Your task to perform on an android device: toggle location history Image 0: 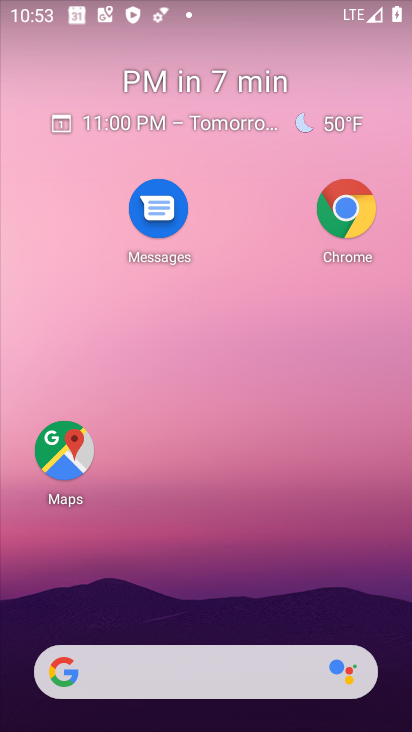
Step 0: drag from (212, 635) to (202, 7)
Your task to perform on an android device: toggle location history Image 1: 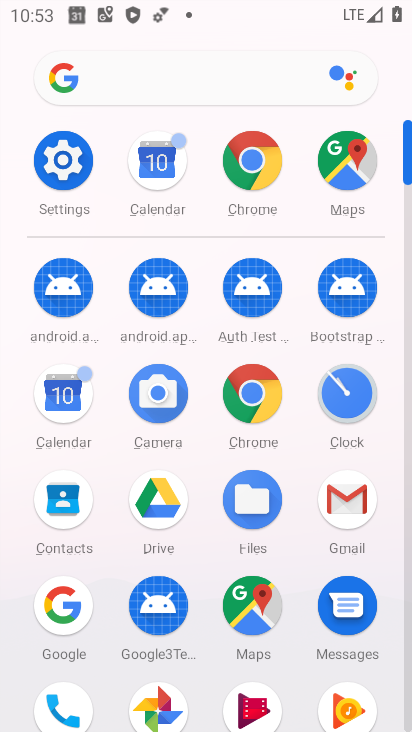
Step 1: click (62, 138)
Your task to perform on an android device: toggle location history Image 2: 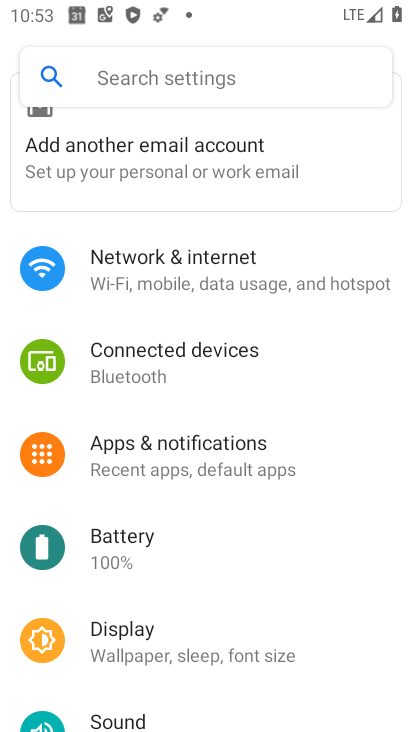
Step 2: drag from (162, 601) to (147, 11)
Your task to perform on an android device: toggle location history Image 3: 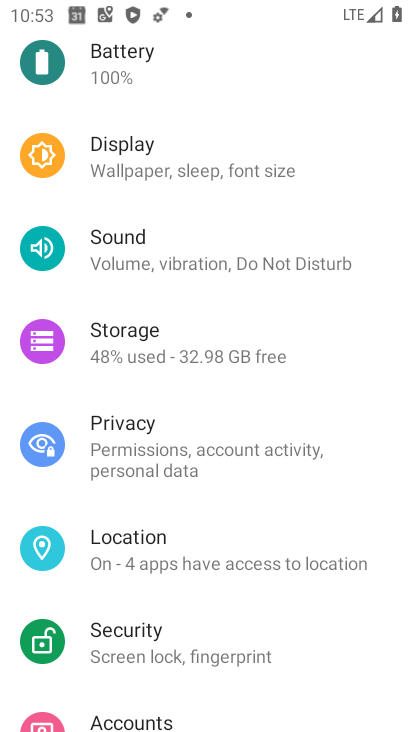
Step 3: click (154, 562)
Your task to perform on an android device: toggle location history Image 4: 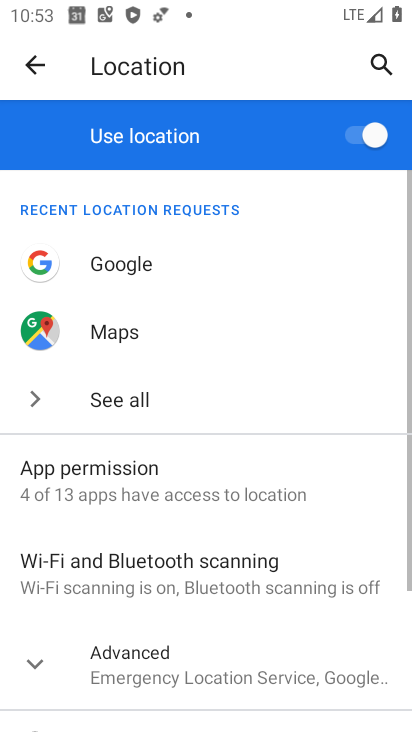
Step 4: click (173, 659)
Your task to perform on an android device: toggle location history Image 5: 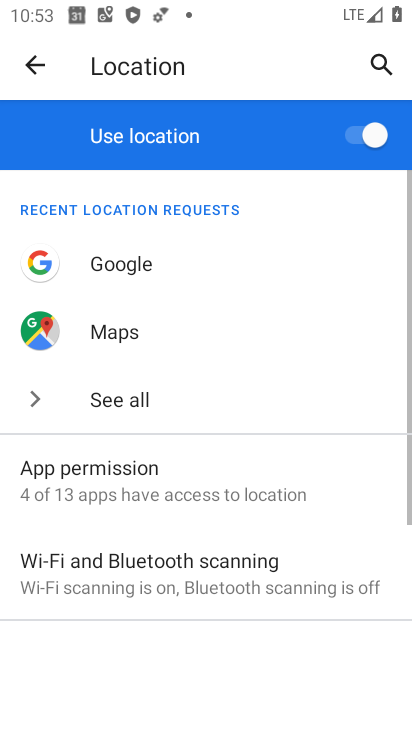
Step 5: drag from (173, 659) to (173, 155)
Your task to perform on an android device: toggle location history Image 6: 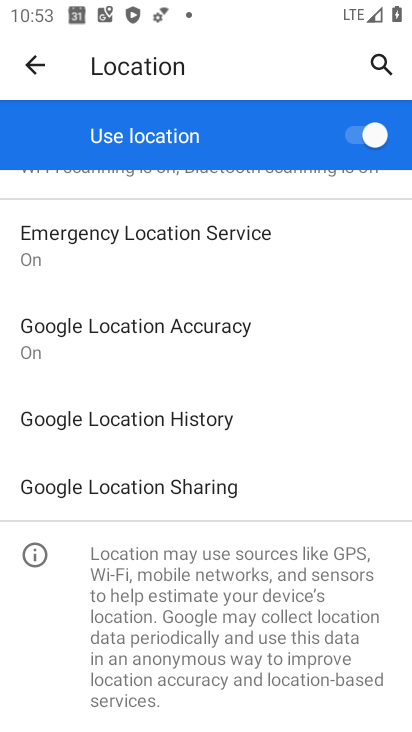
Step 6: click (180, 425)
Your task to perform on an android device: toggle location history Image 7: 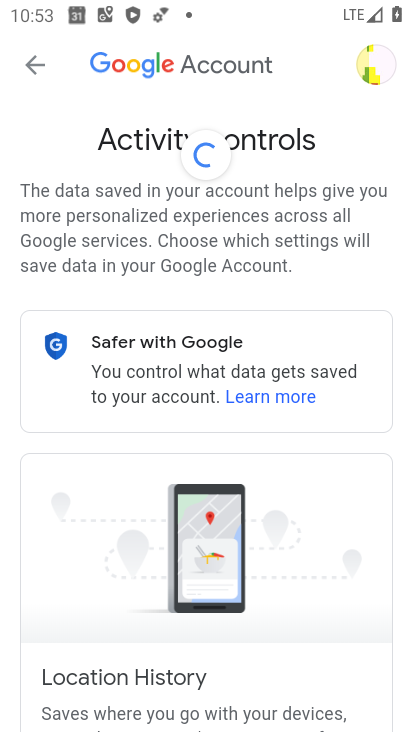
Step 7: drag from (302, 620) to (302, 81)
Your task to perform on an android device: toggle location history Image 8: 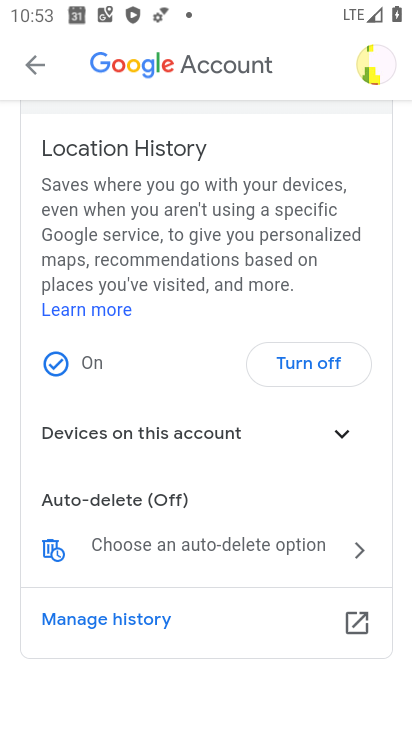
Step 8: click (325, 366)
Your task to perform on an android device: toggle location history Image 9: 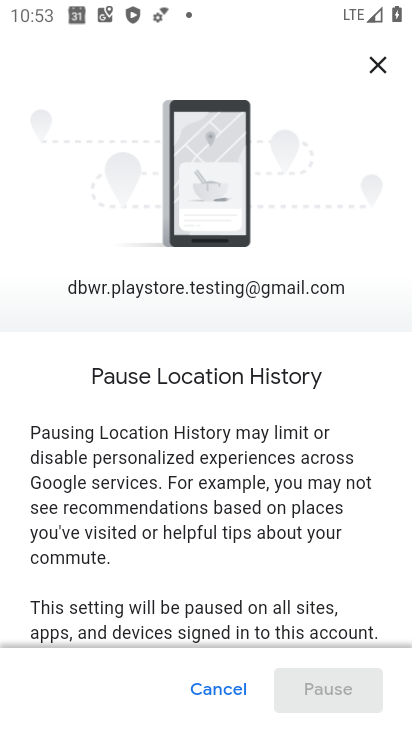
Step 9: drag from (299, 631) to (249, 4)
Your task to perform on an android device: toggle location history Image 10: 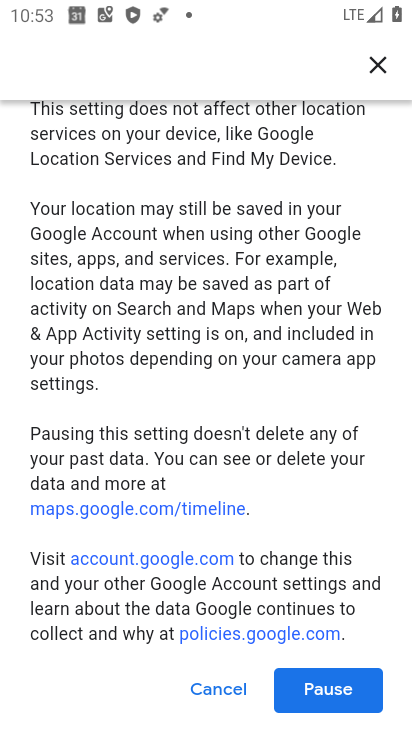
Step 10: click (325, 699)
Your task to perform on an android device: toggle location history Image 11: 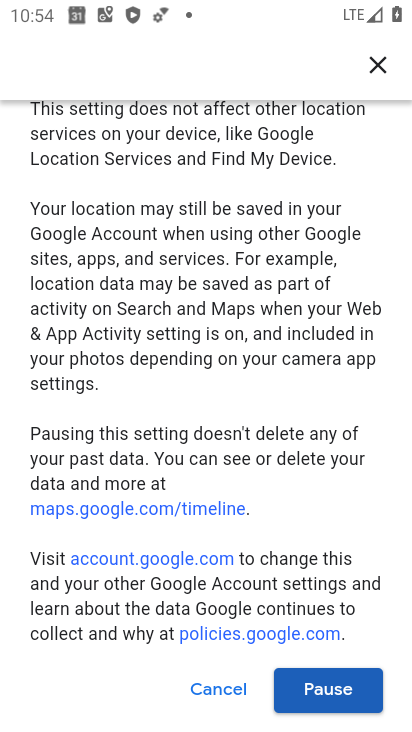
Step 11: click (318, 682)
Your task to perform on an android device: toggle location history Image 12: 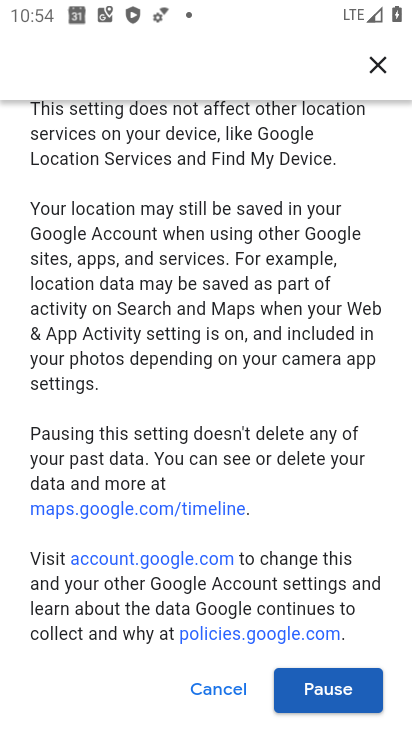
Step 12: click (329, 698)
Your task to perform on an android device: toggle location history Image 13: 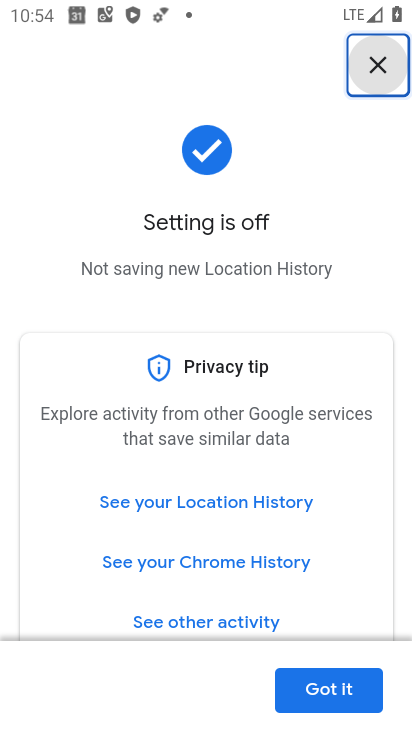
Step 13: click (326, 692)
Your task to perform on an android device: toggle location history Image 14: 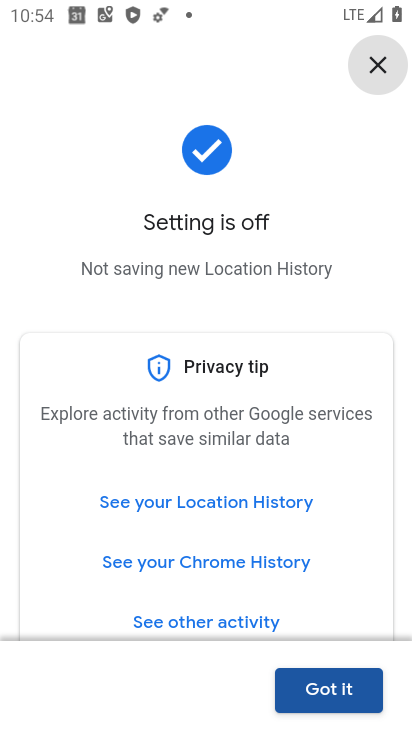
Step 14: task complete